Your task to perform on an android device: turn on priority inbox in the gmail app Image 0: 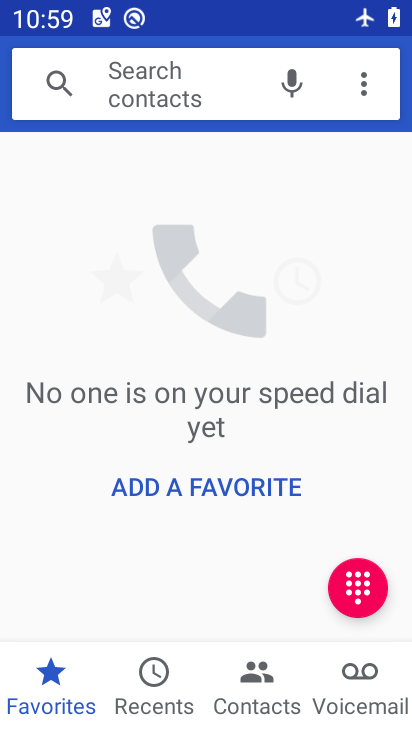
Step 0: drag from (194, 535) to (149, 179)
Your task to perform on an android device: turn on priority inbox in the gmail app Image 1: 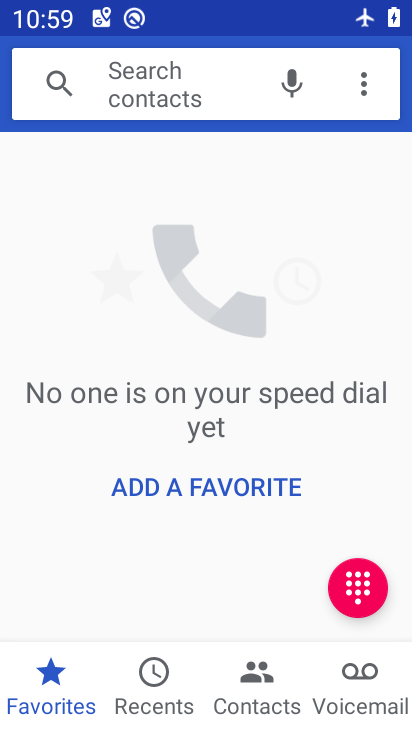
Step 1: press home button
Your task to perform on an android device: turn on priority inbox in the gmail app Image 2: 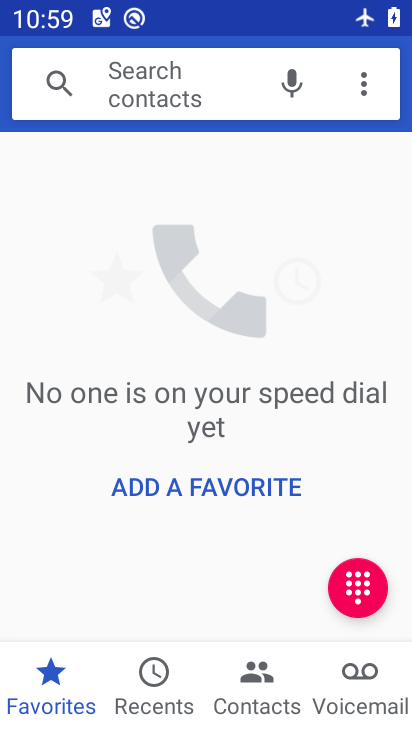
Step 2: press home button
Your task to perform on an android device: turn on priority inbox in the gmail app Image 3: 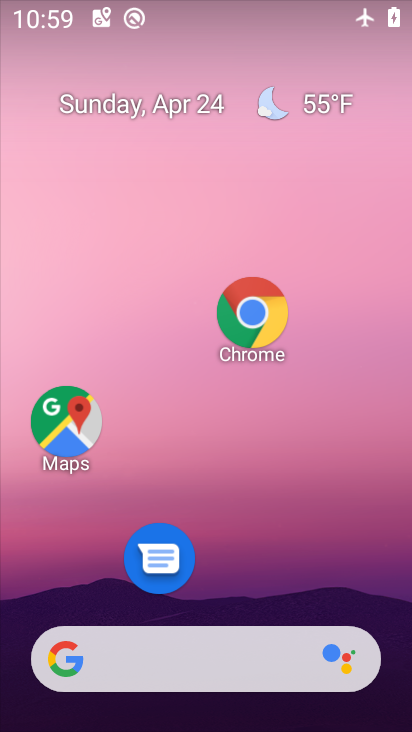
Step 3: drag from (303, 673) to (212, 106)
Your task to perform on an android device: turn on priority inbox in the gmail app Image 4: 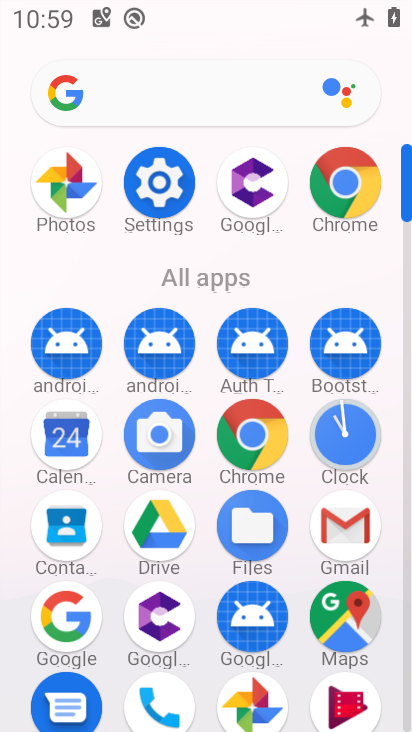
Step 4: click (348, 532)
Your task to perform on an android device: turn on priority inbox in the gmail app Image 5: 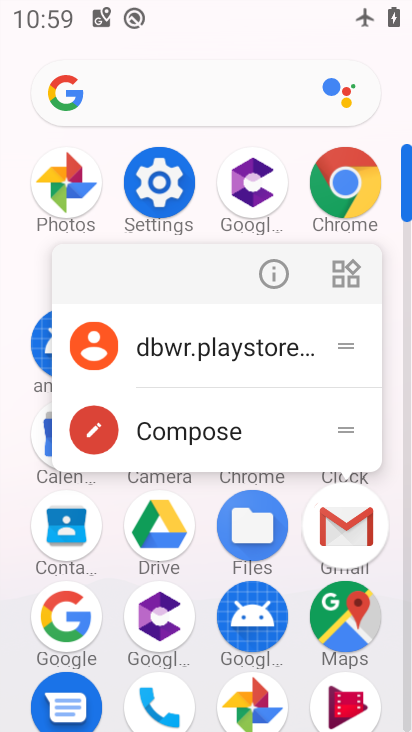
Step 5: click (350, 527)
Your task to perform on an android device: turn on priority inbox in the gmail app Image 6: 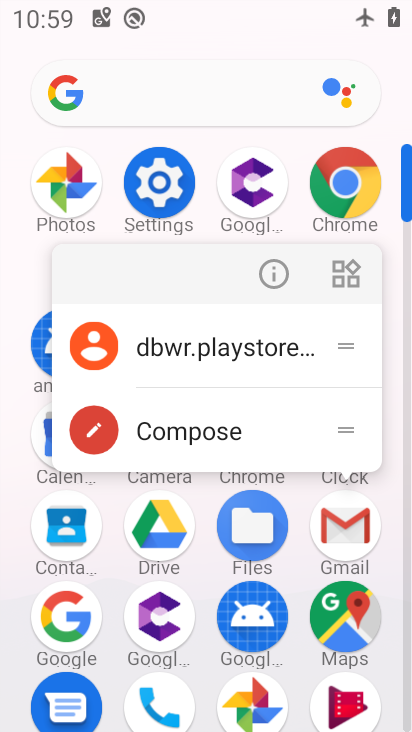
Step 6: click (211, 344)
Your task to perform on an android device: turn on priority inbox in the gmail app Image 7: 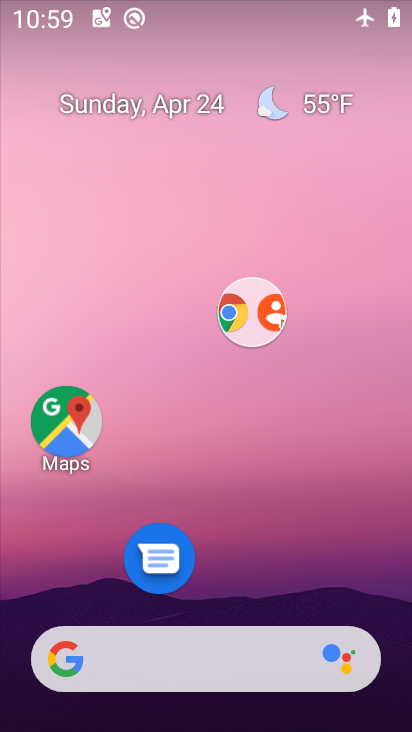
Step 7: drag from (237, 660) to (253, 6)
Your task to perform on an android device: turn on priority inbox in the gmail app Image 8: 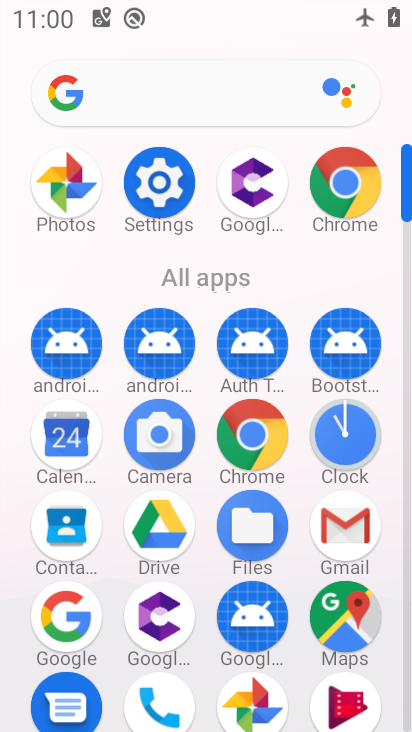
Step 8: click (334, 528)
Your task to perform on an android device: turn on priority inbox in the gmail app Image 9: 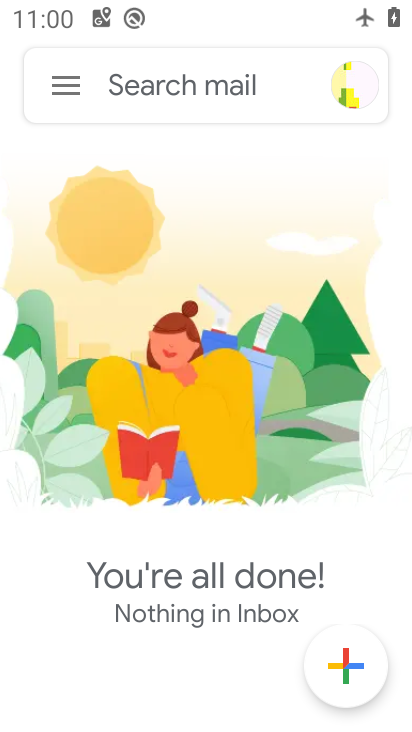
Step 9: click (66, 83)
Your task to perform on an android device: turn on priority inbox in the gmail app Image 10: 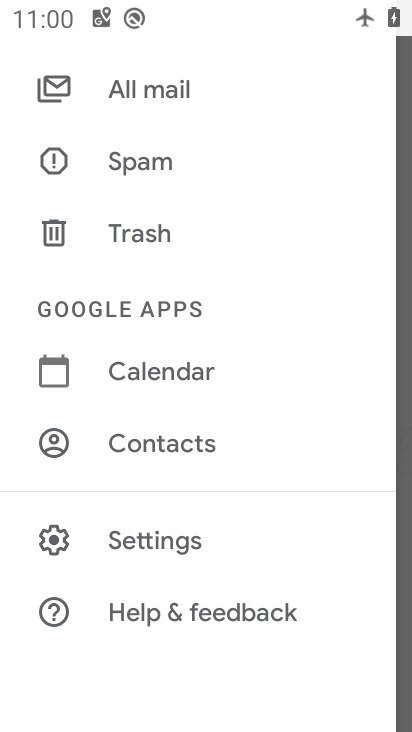
Step 10: click (157, 531)
Your task to perform on an android device: turn on priority inbox in the gmail app Image 11: 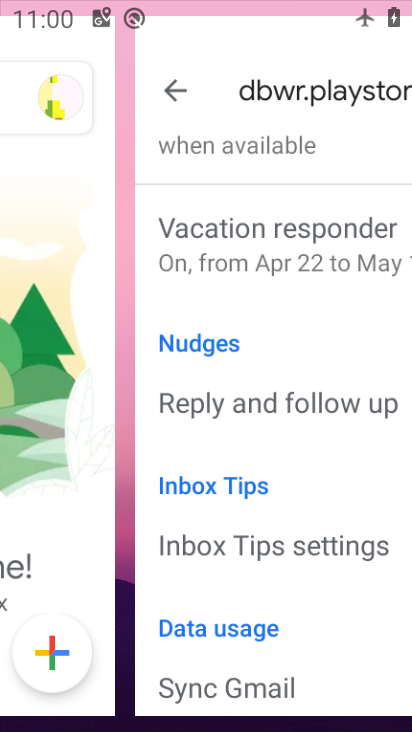
Step 11: click (133, 535)
Your task to perform on an android device: turn on priority inbox in the gmail app Image 12: 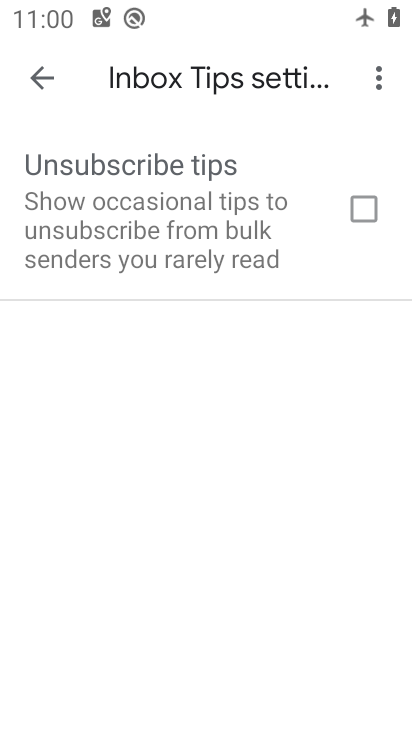
Step 12: click (44, 86)
Your task to perform on an android device: turn on priority inbox in the gmail app Image 13: 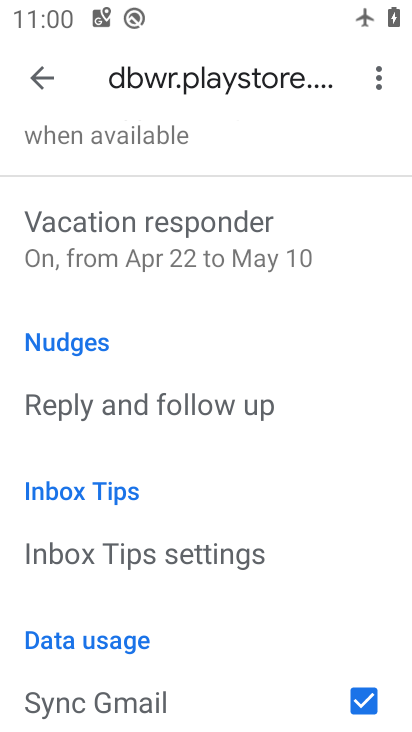
Step 13: click (38, 73)
Your task to perform on an android device: turn on priority inbox in the gmail app Image 14: 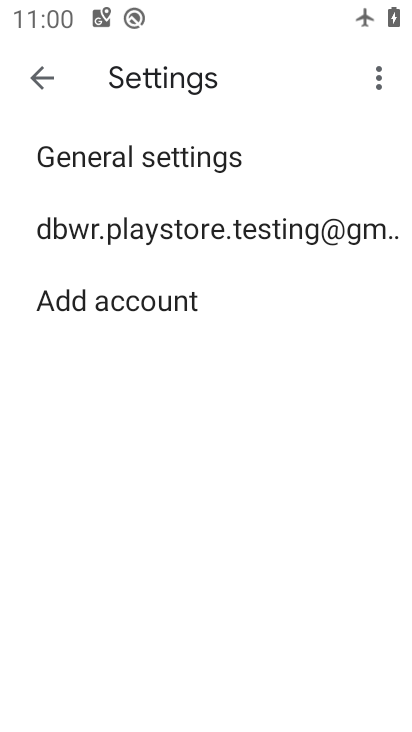
Step 14: click (183, 216)
Your task to perform on an android device: turn on priority inbox in the gmail app Image 15: 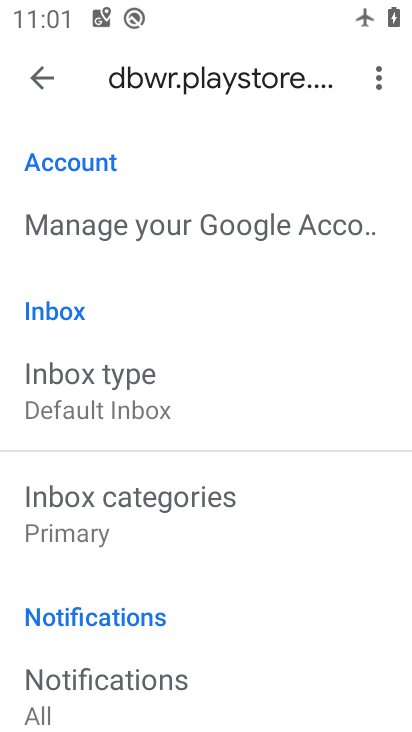
Step 15: drag from (130, 603) to (130, 220)
Your task to perform on an android device: turn on priority inbox in the gmail app Image 16: 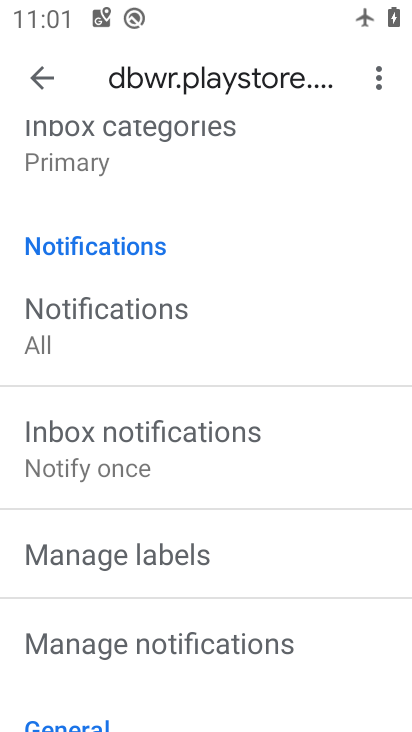
Step 16: drag from (80, 244) to (133, 562)
Your task to perform on an android device: turn on priority inbox in the gmail app Image 17: 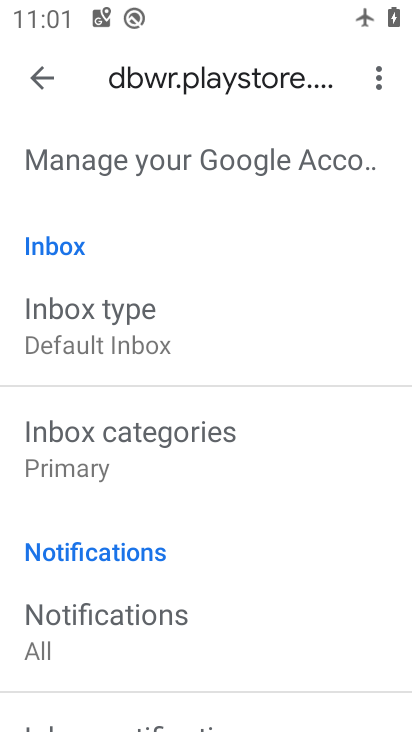
Step 17: click (61, 336)
Your task to perform on an android device: turn on priority inbox in the gmail app Image 18: 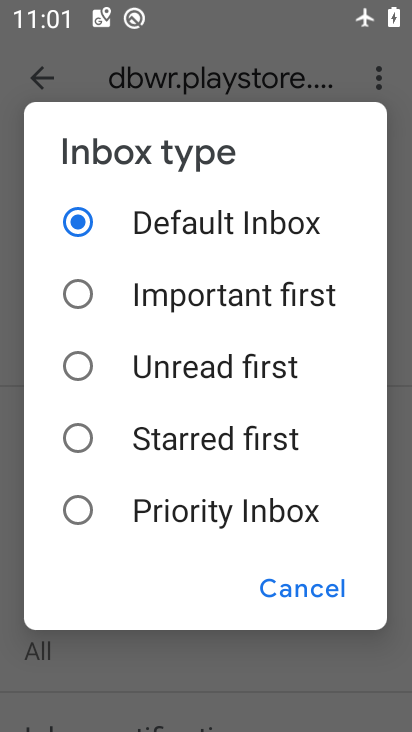
Step 18: click (73, 509)
Your task to perform on an android device: turn on priority inbox in the gmail app Image 19: 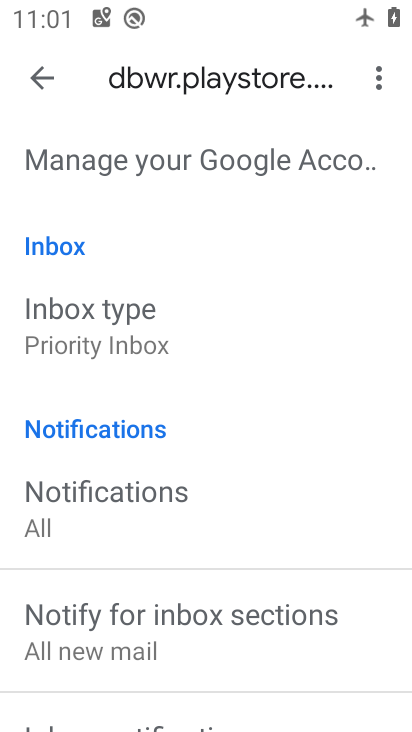
Step 19: click (32, 82)
Your task to perform on an android device: turn on priority inbox in the gmail app Image 20: 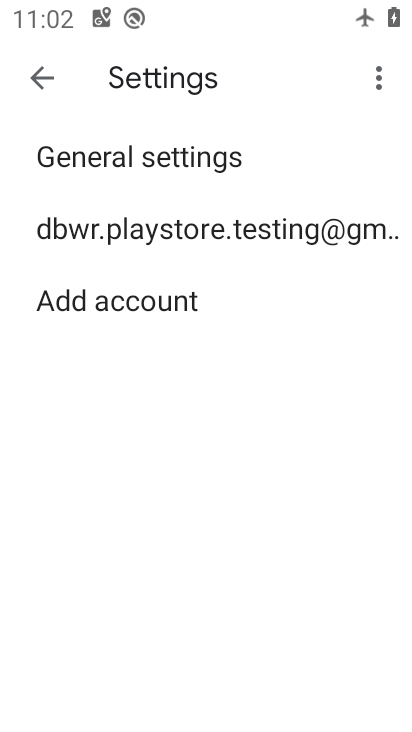
Step 20: click (147, 233)
Your task to perform on an android device: turn on priority inbox in the gmail app Image 21: 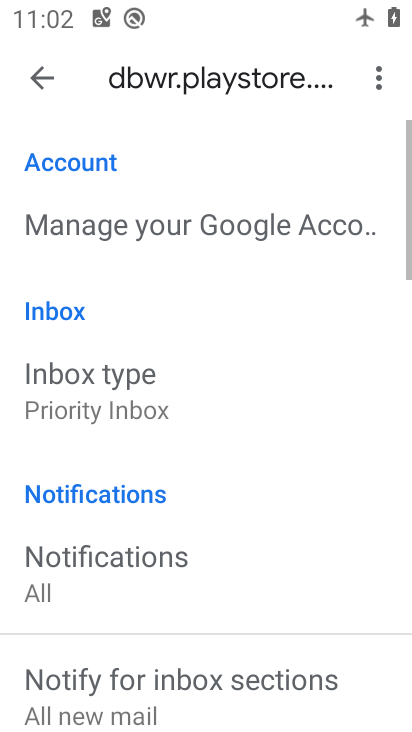
Step 21: click (149, 235)
Your task to perform on an android device: turn on priority inbox in the gmail app Image 22: 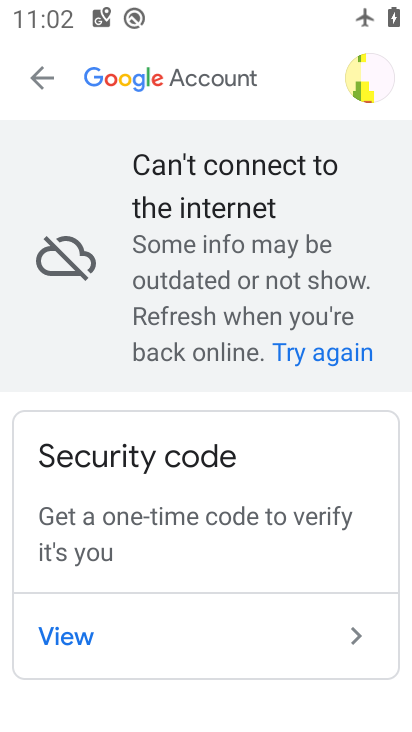
Step 22: click (39, 73)
Your task to perform on an android device: turn on priority inbox in the gmail app Image 23: 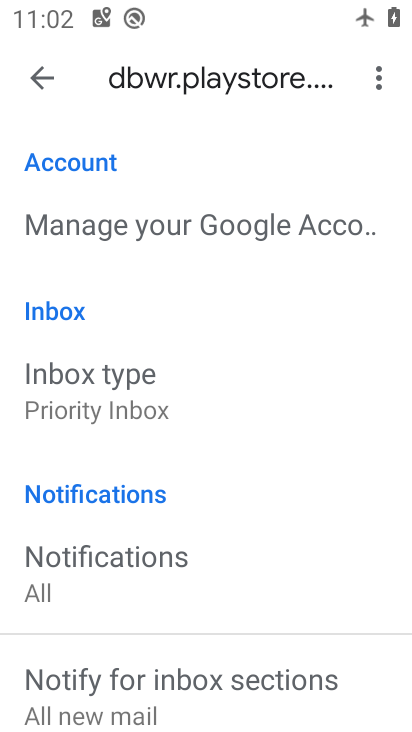
Step 23: click (108, 401)
Your task to perform on an android device: turn on priority inbox in the gmail app Image 24: 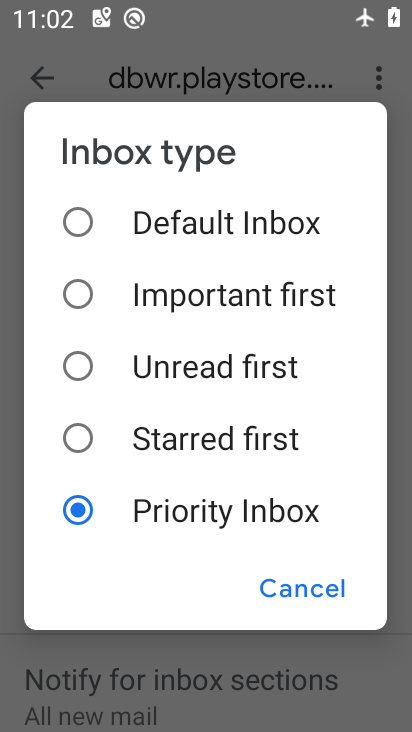
Step 24: task complete